Your task to perform on an android device: Open calendar and show me the third week of next month Image 0: 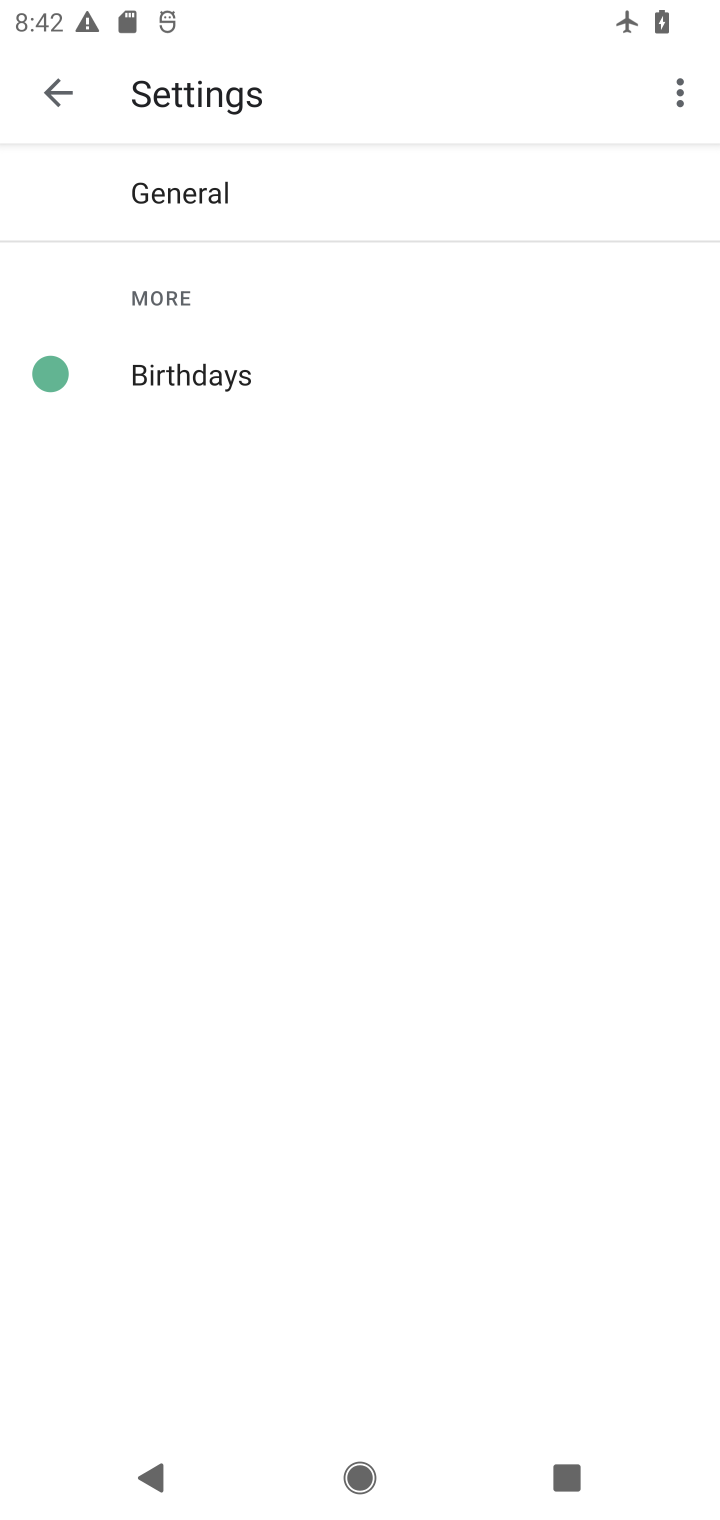
Step 0: press home button
Your task to perform on an android device: Open calendar and show me the third week of next month Image 1: 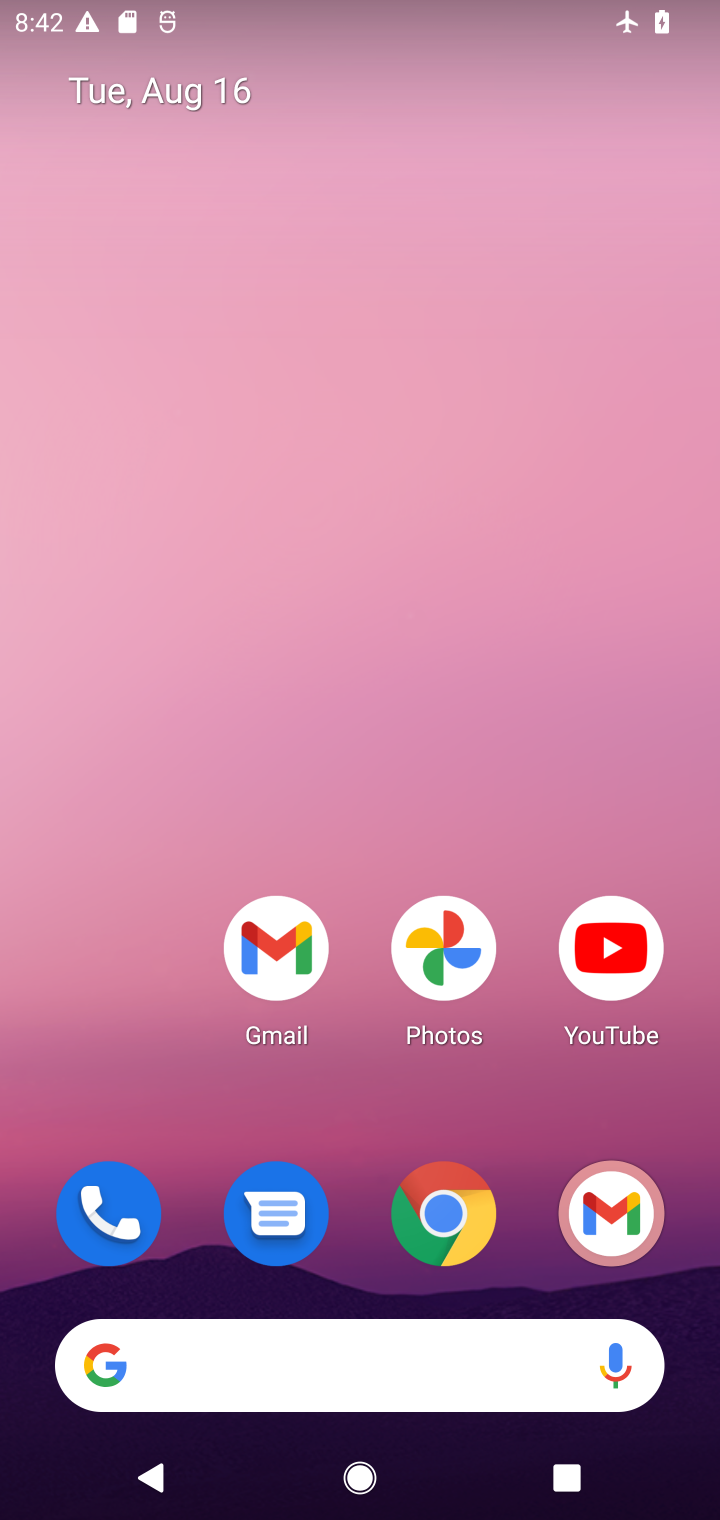
Step 1: drag from (360, 1220) to (418, 710)
Your task to perform on an android device: Open calendar and show me the third week of next month Image 2: 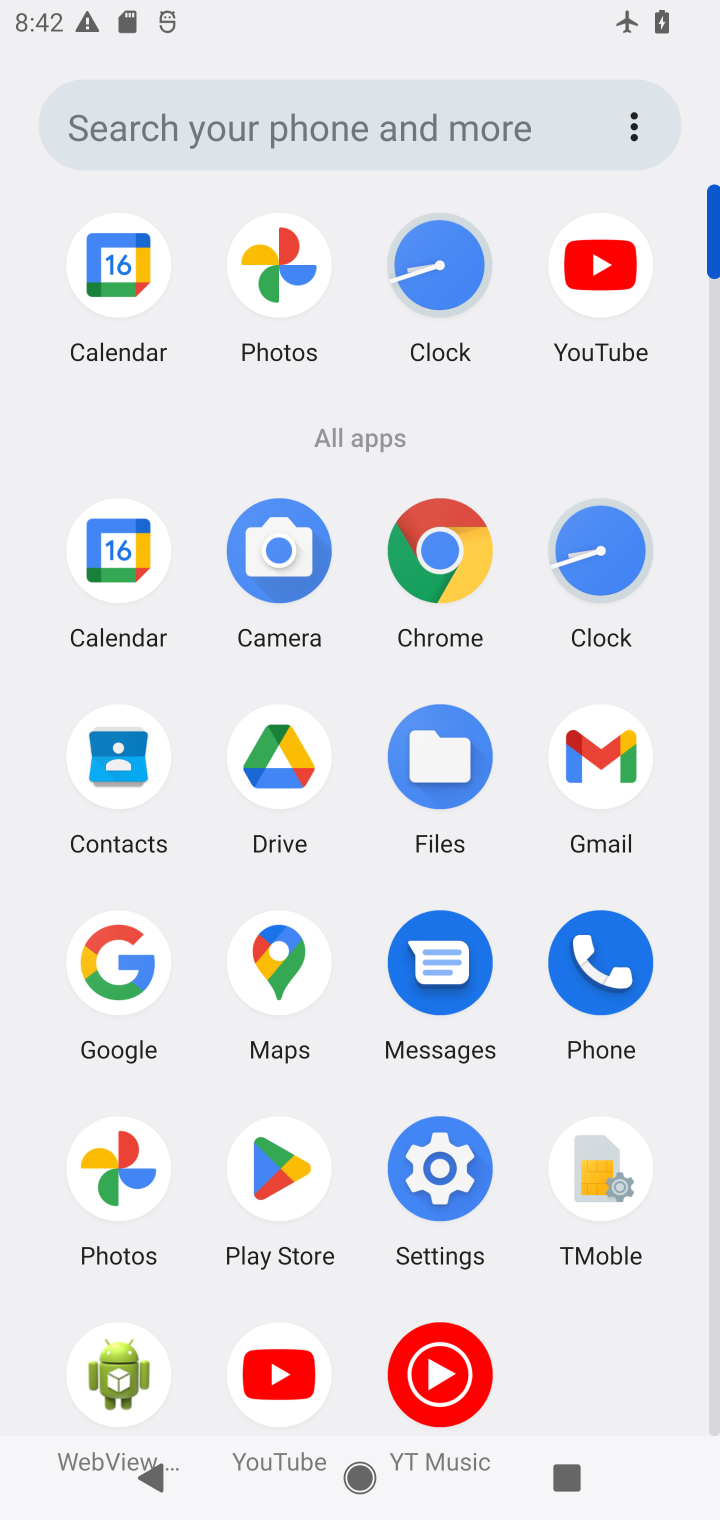
Step 2: click (82, 521)
Your task to perform on an android device: Open calendar and show me the third week of next month Image 3: 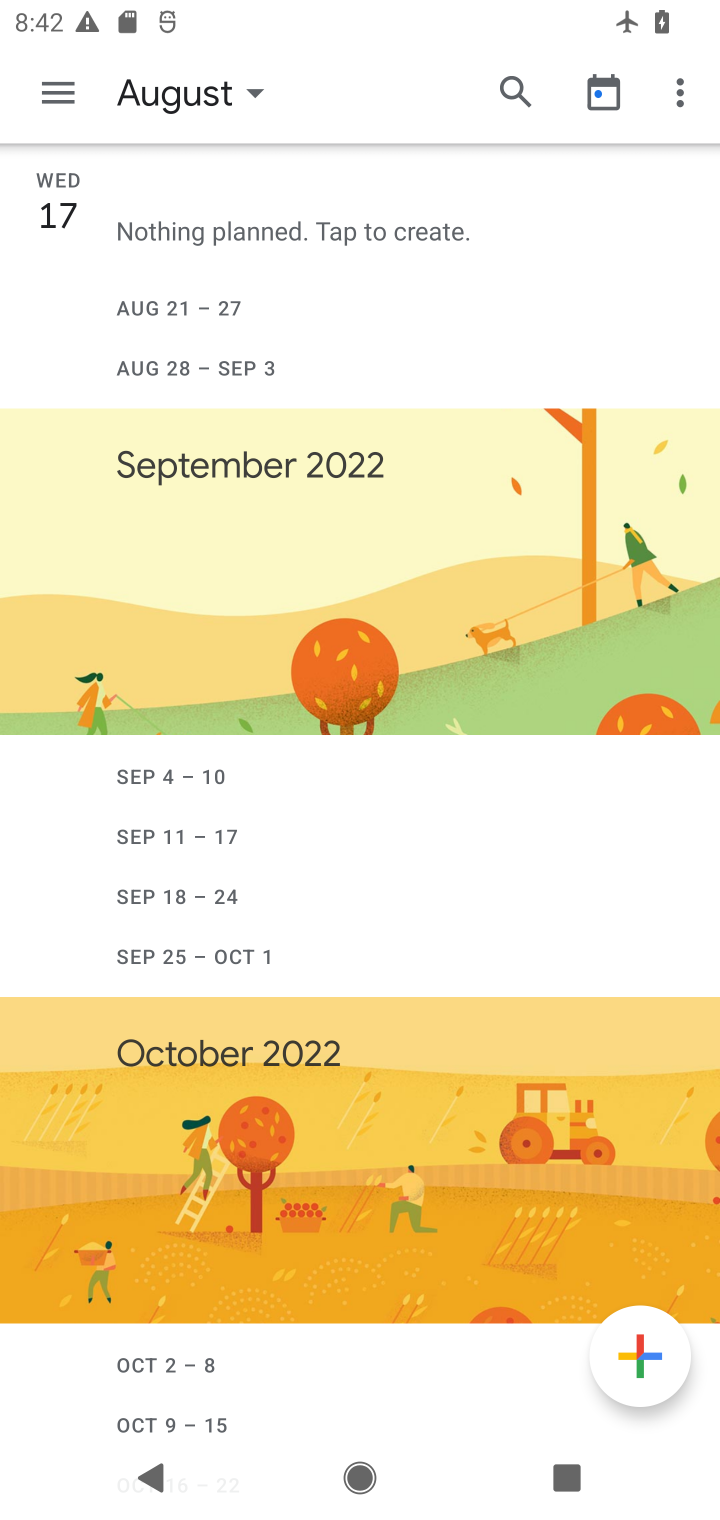
Step 3: click (68, 88)
Your task to perform on an android device: Open calendar and show me the third week of next month Image 4: 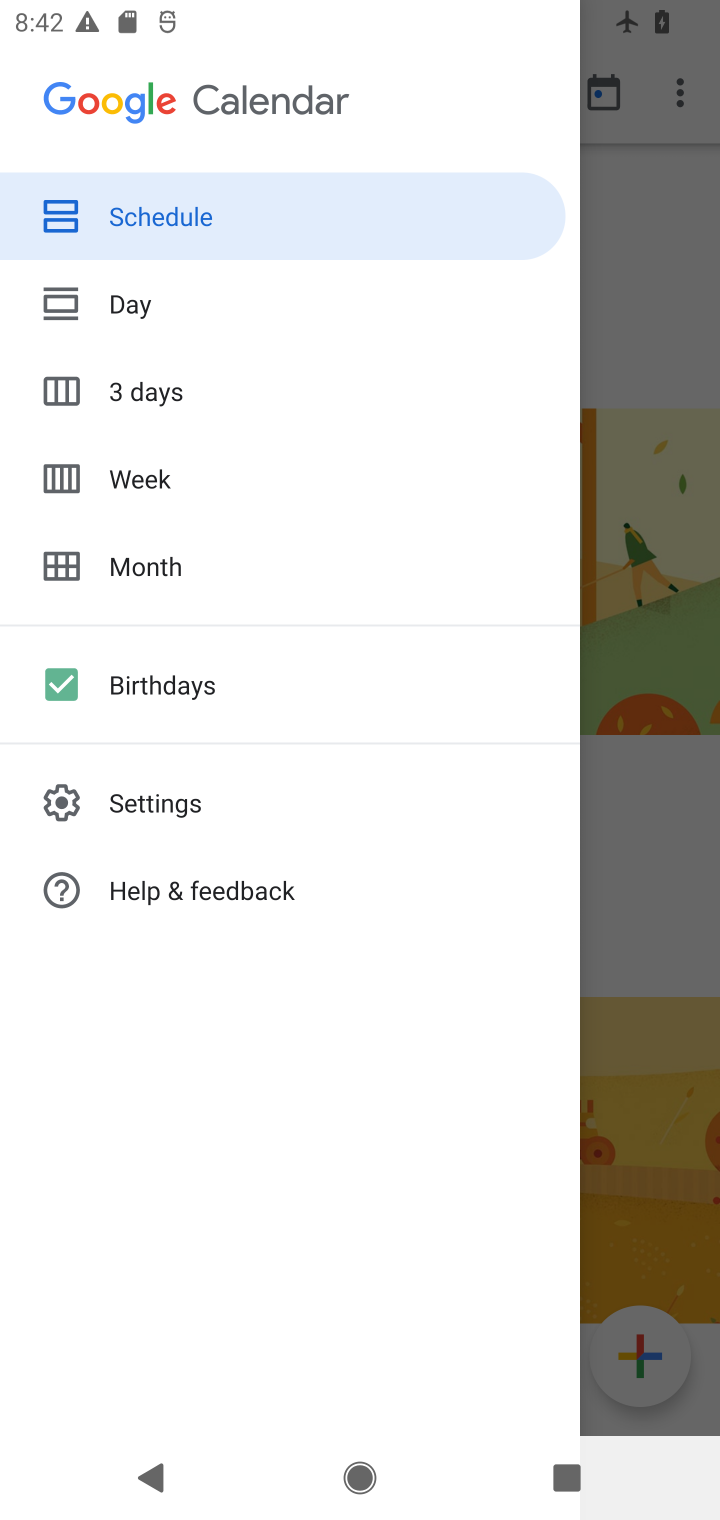
Step 4: click (192, 484)
Your task to perform on an android device: Open calendar and show me the third week of next month Image 5: 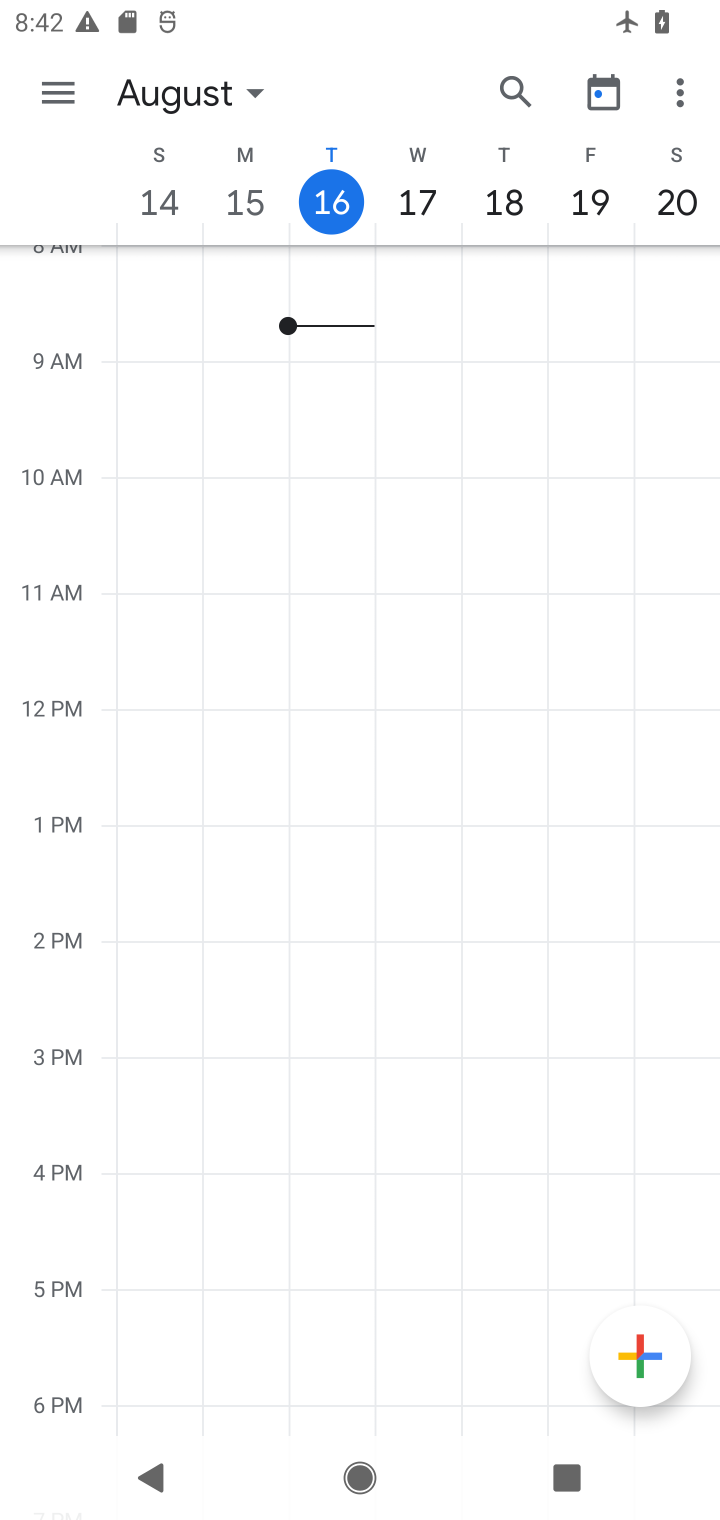
Step 5: task complete